Your task to perform on an android device: Open Google Chrome Image 0: 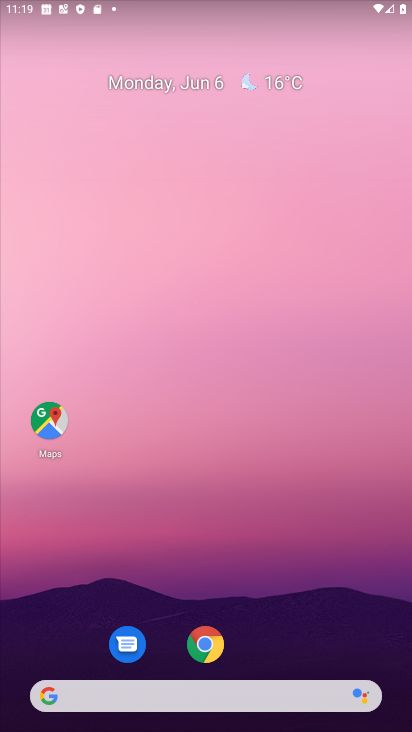
Step 0: click (208, 646)
Your task to perform on an android device: Open Google Chrome Image 1: 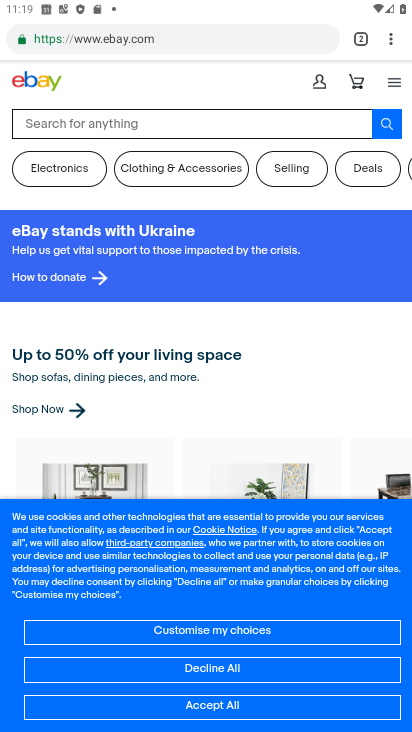
Step 1: task complete